Your task to perform on an android device: What is the news today? Image 0: 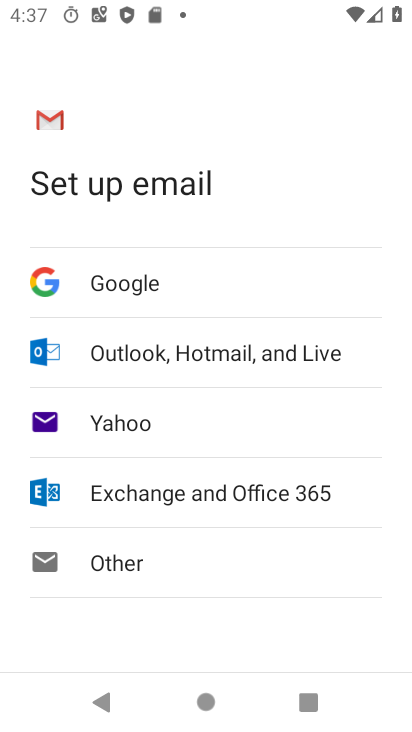
Step 0: press home button
Your task to perform on an android device: What is the news today? Image 1: 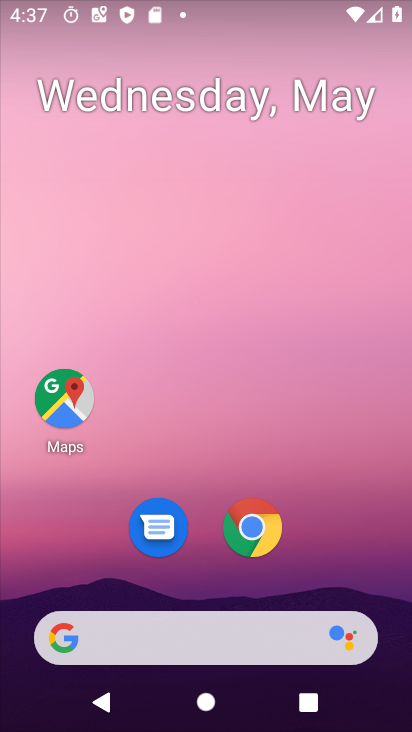
Step 1: click (254, 527)
Your task to perform on an android device: What is the news today? Image 2: 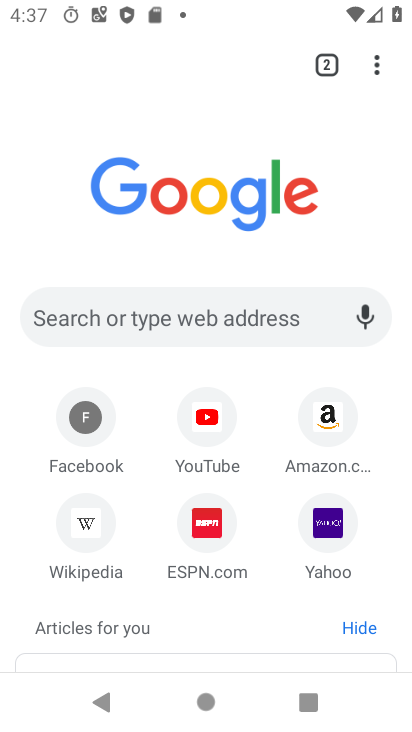
Step 2: click (92, 313)
Your task to perform on an android device: What is the news today? Image 3: 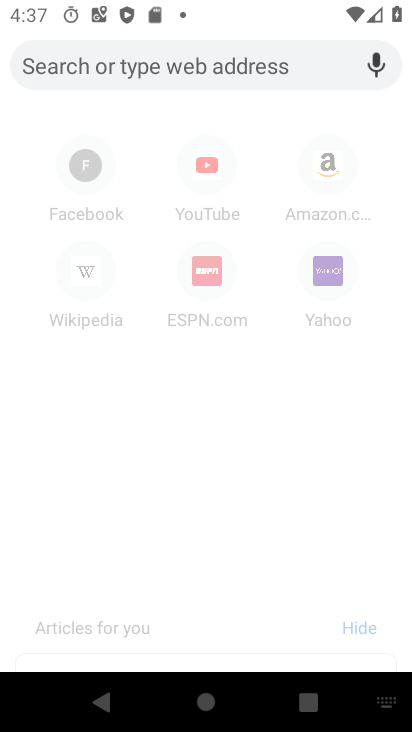
Step 3: type "What is the news today?"
Your task to perform on an android device: What is the news today? Image 4: 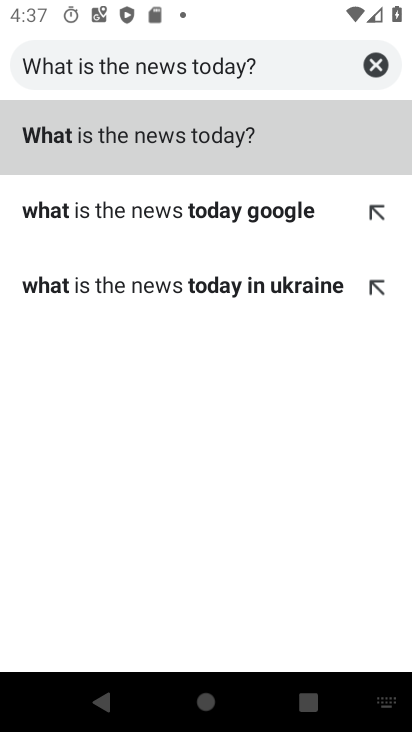
Step 4: click (192, 134)
Your task to perform on an android device: What is the news today? Image 5: 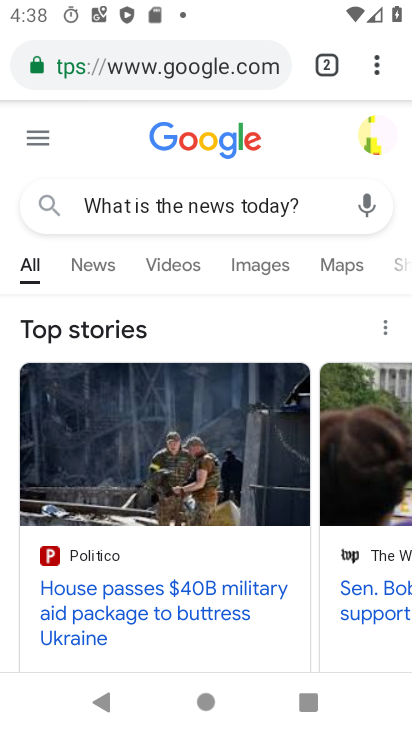
Step 5: click (91, 259)
Your task to perform on an android device: What is the news today? Image 6: 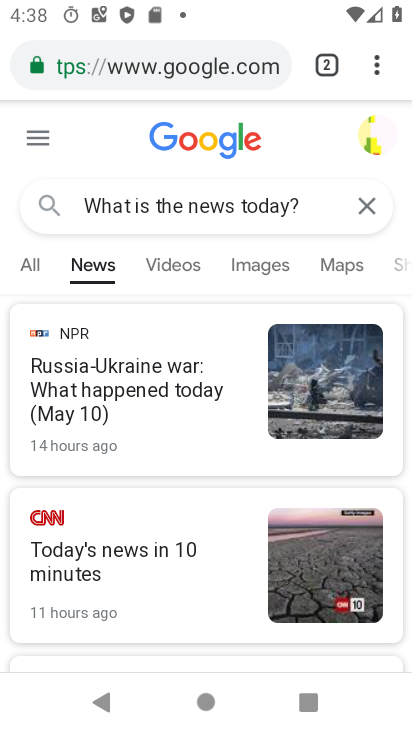
Step 6: task complete